Your task to perform on an android device: Open calendar and show me the fourth week of next month Image 0: 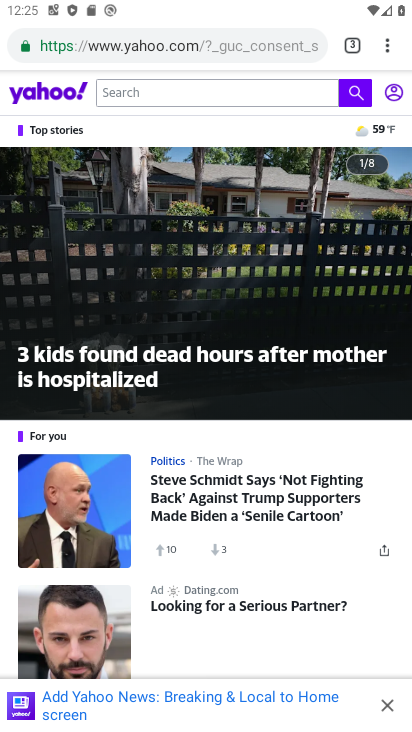
Step 0: press home button
Your task to perform on an android device: Open calendar and show me the fourth week of next month Image 1: 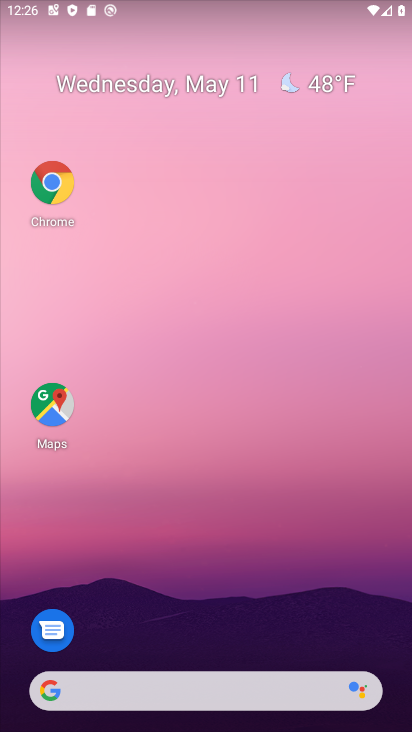
Step 1: drag from (197, 655) to (77, 5)
Your task to perform on an android device: Open calendar and show me the fourth week of next month Image 2: 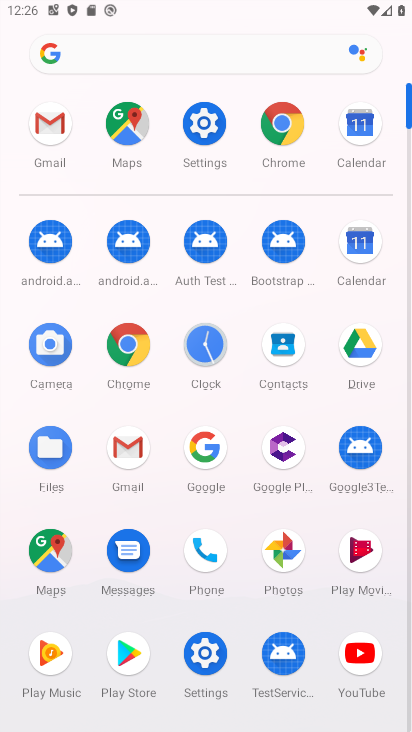
Step 2: click (350, 236)
Your task to perform on an android device: Open calendar and show me the fourth week of next month Image 3: 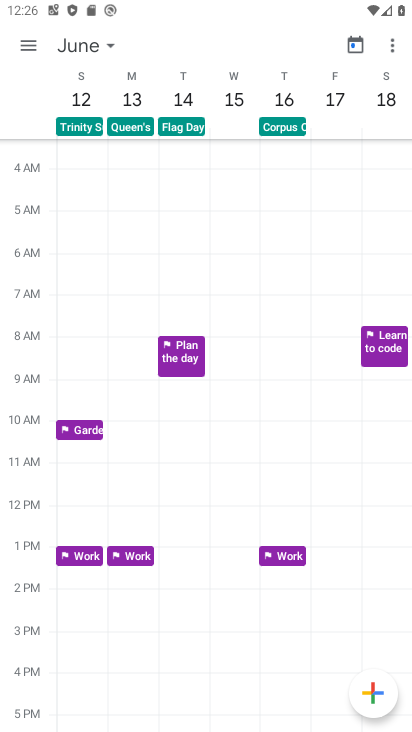
Step 3: task complete